Your task to perform on an android device: Is it going to rain today? Image 0: 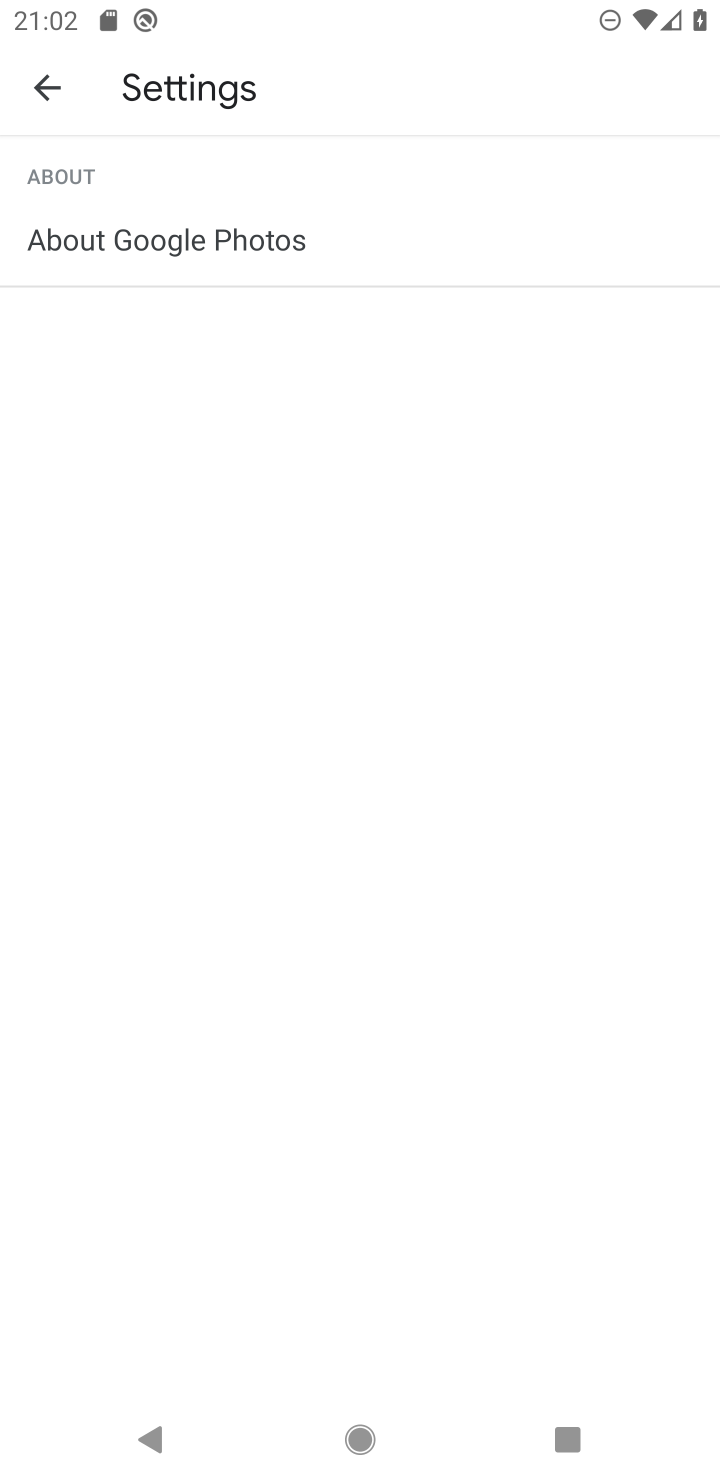
Step 0: press home button
Your task to perform on an android device: Is it going to rain today? Image 1: 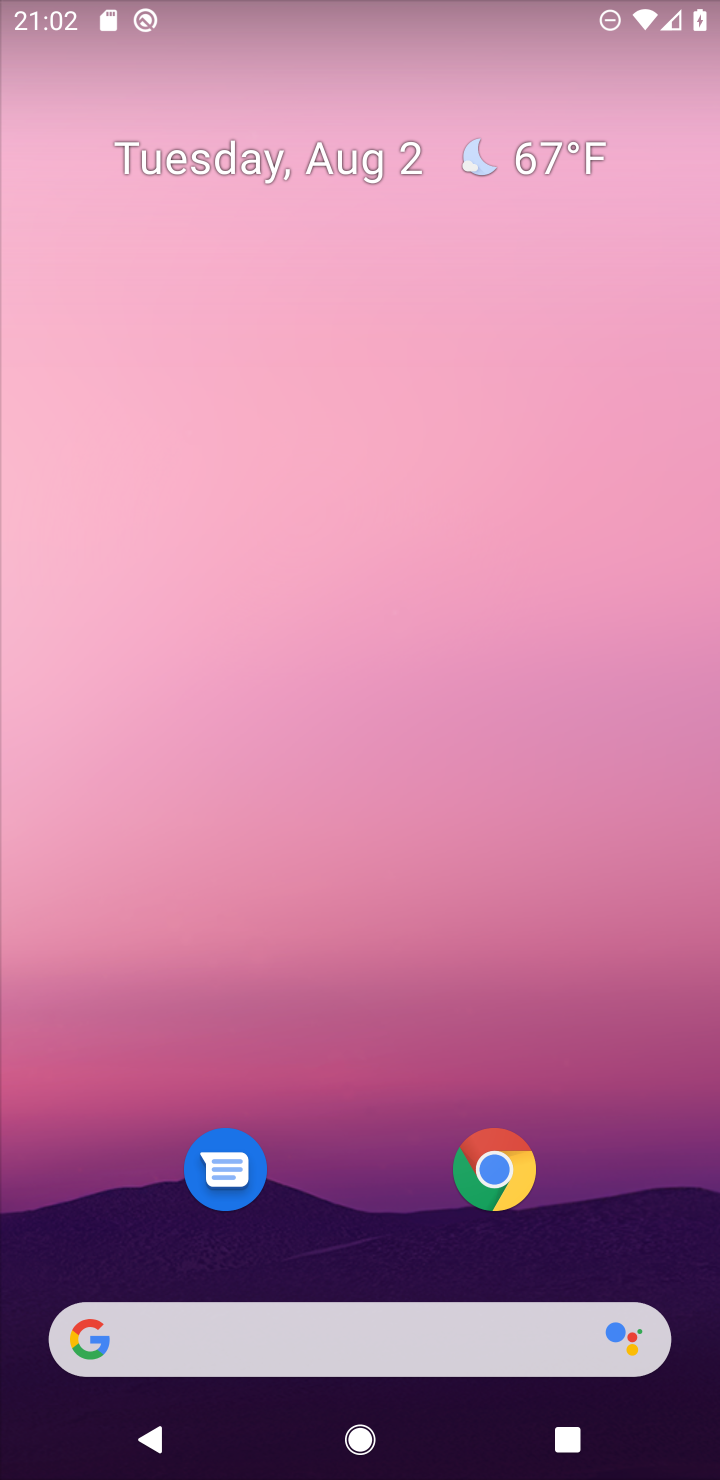
Step 1: drag from (380, 1128) to (294, 344)
Your task to perform on an android device: Is it going to rain today? Image 2: 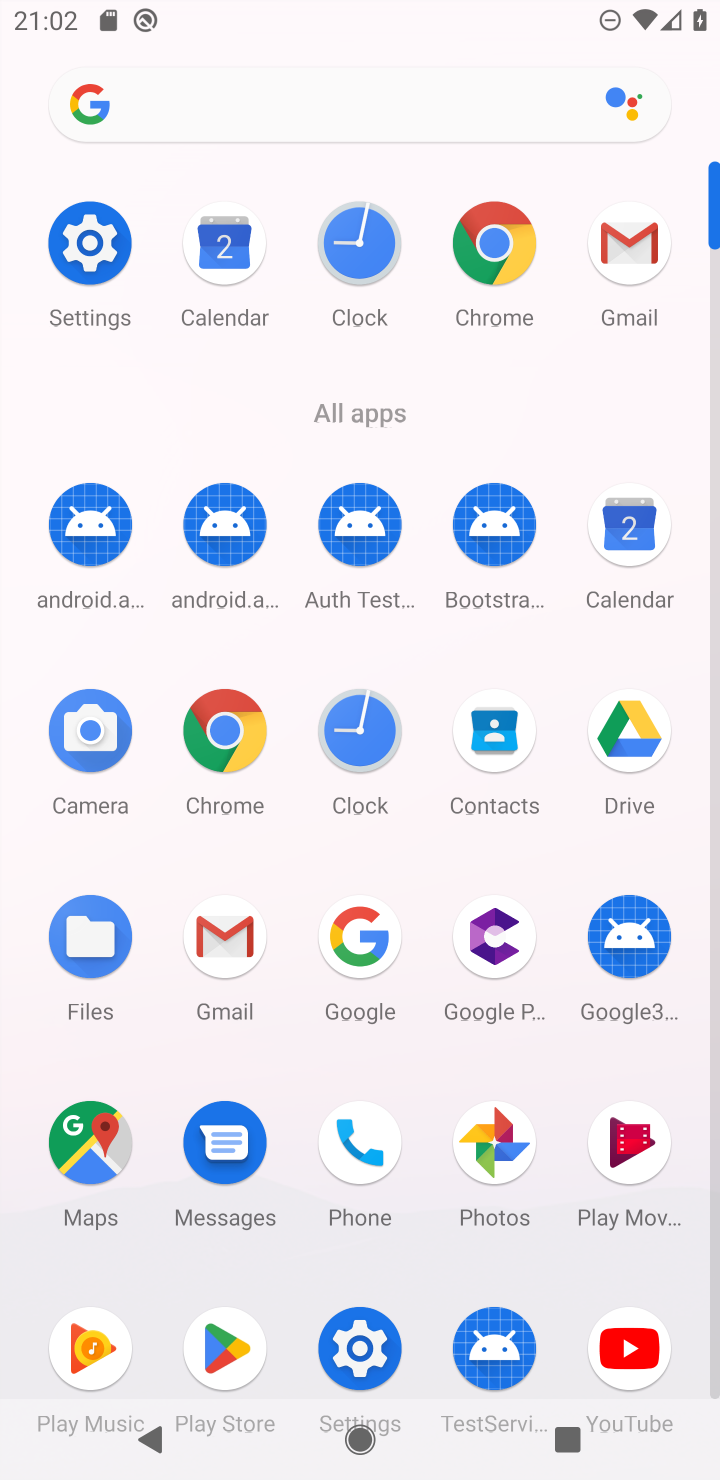
Step 2: click (354, 954)
Your task to perform on an android device: Is it going to rain today? Image 3: 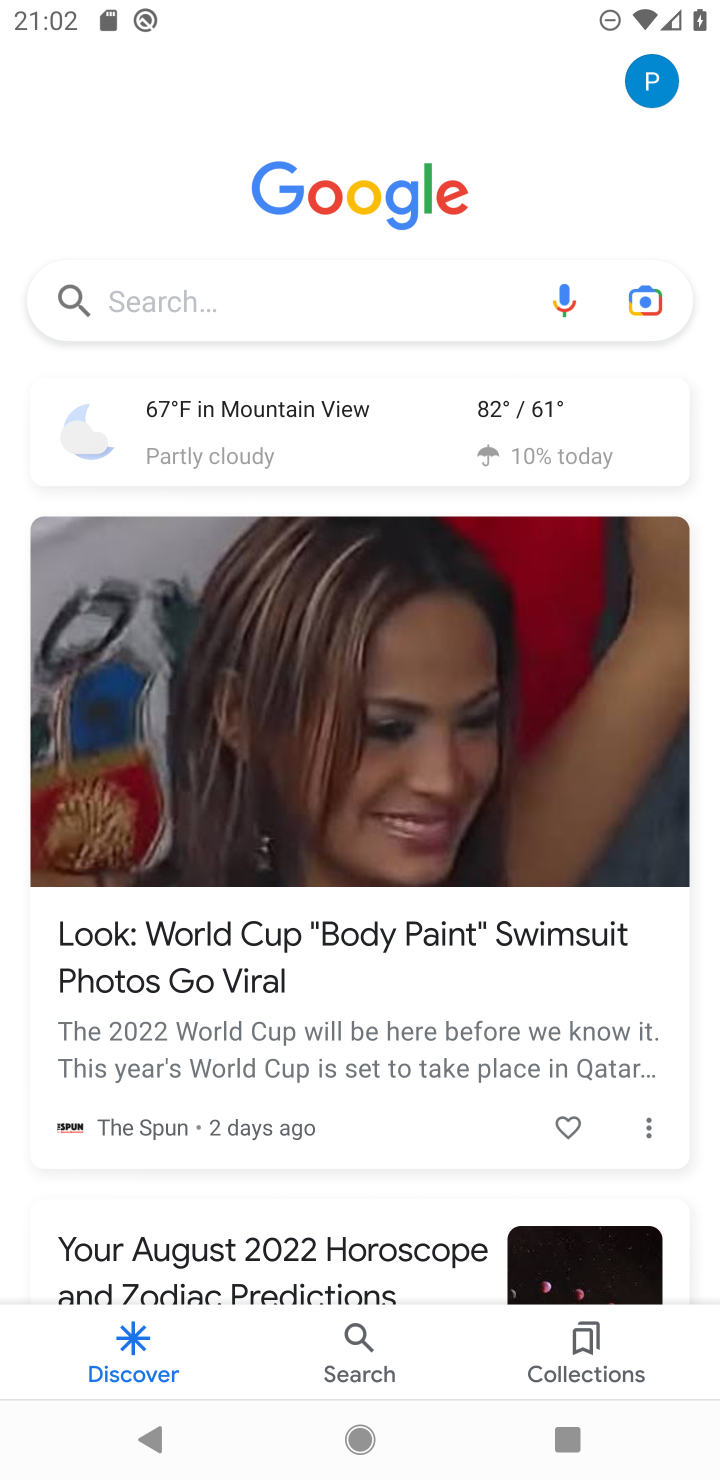
Step 3: click (226, 443)
Your task to perform on an android device: Is it going to rain today? Image 4: 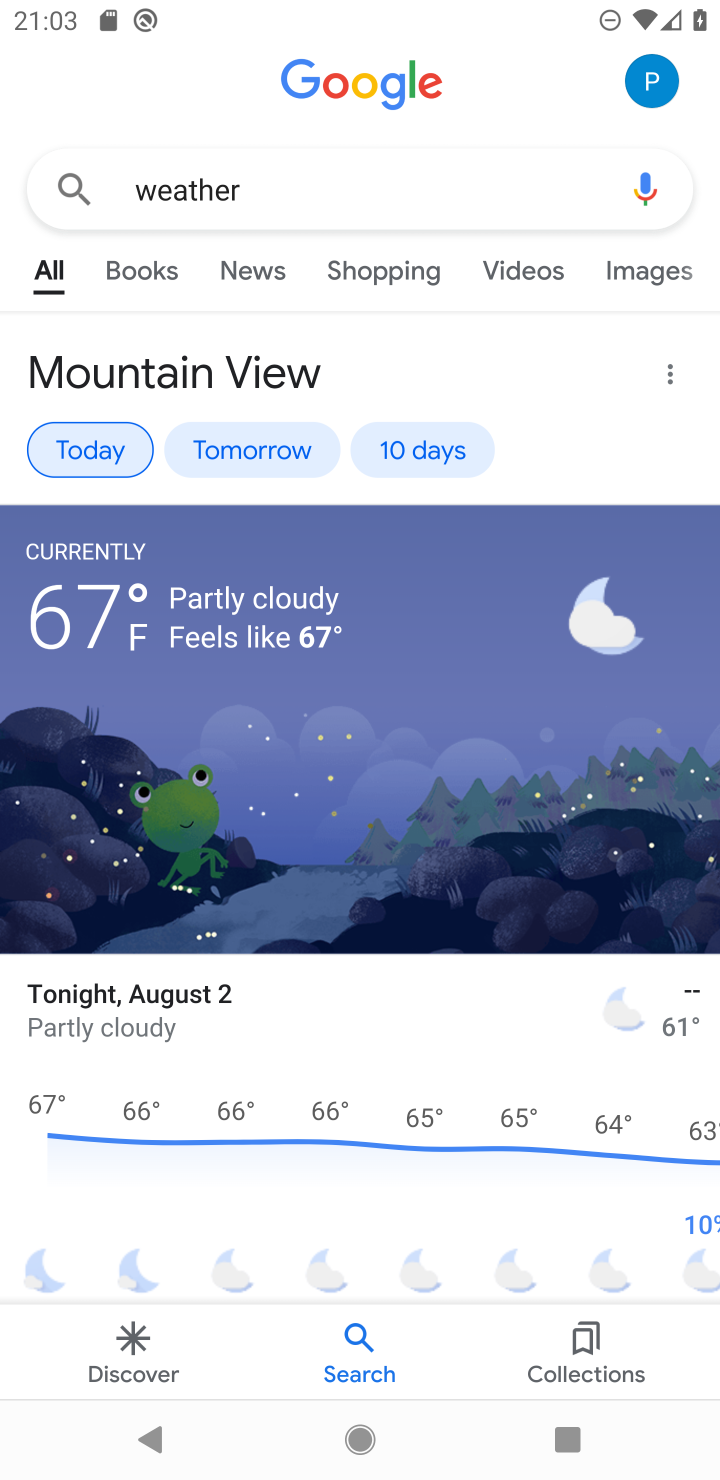
Step 4: click (87, 450)
Your task to perform on an android device: Is it going to rain today? Image 5: 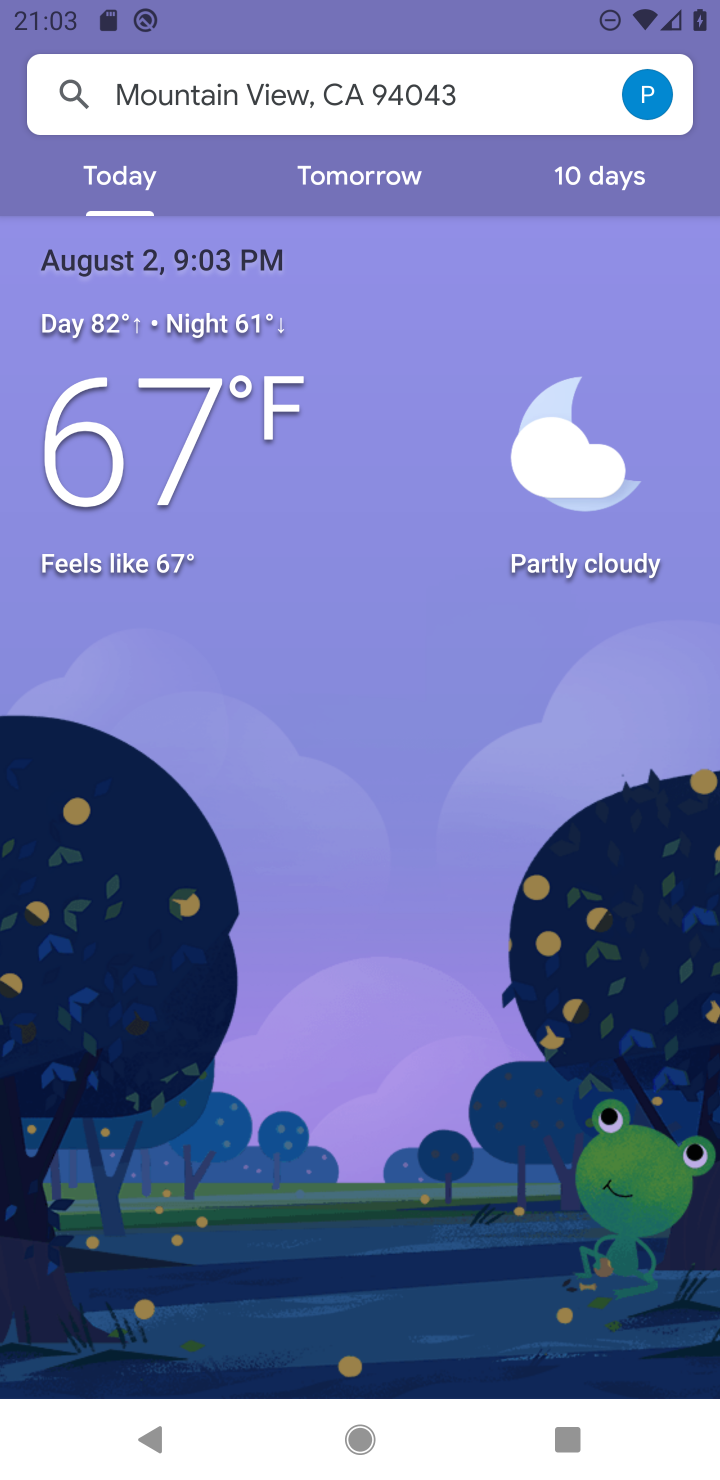
Step 5: task complete